Your task to perform on an android device: open device folders in google photos Image 0: 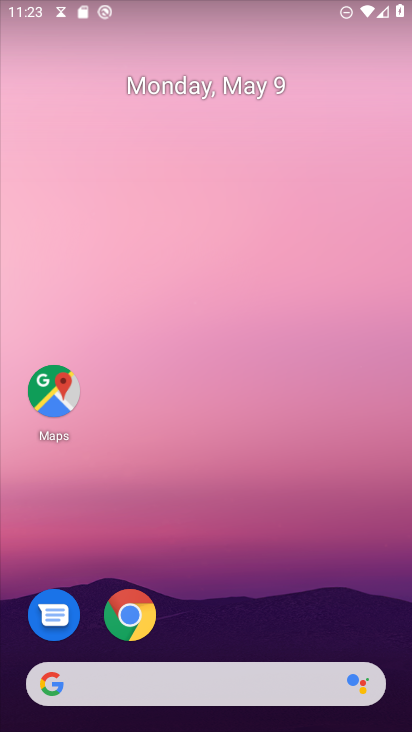
Step 0: drag from (199, 720) to (197, 165)
Your task to perform on an android device: open device folders in google photos Image 1: 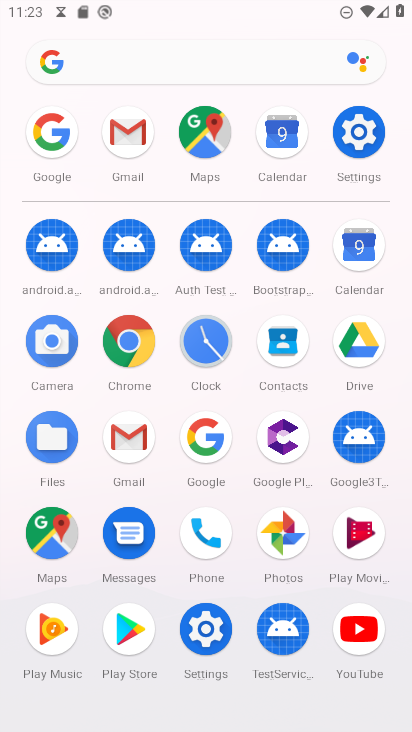
Step 1: click (280, 533)
Your task to perform on an android device: open device folders in google photos Image 2: 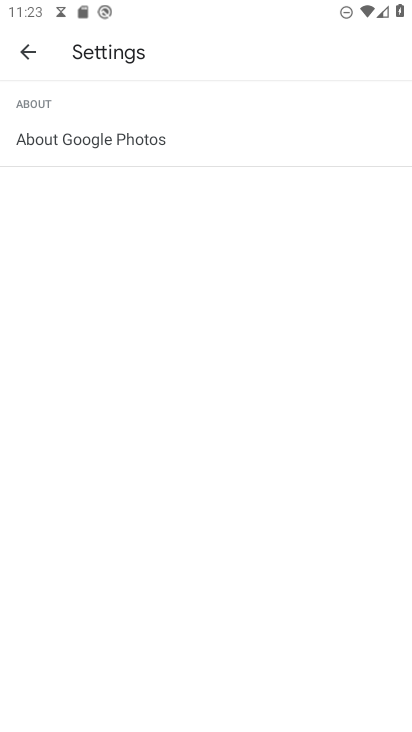
Step 2: click (29, 51)
Your task to perform on an android device: open device folders in google photos Image 3: 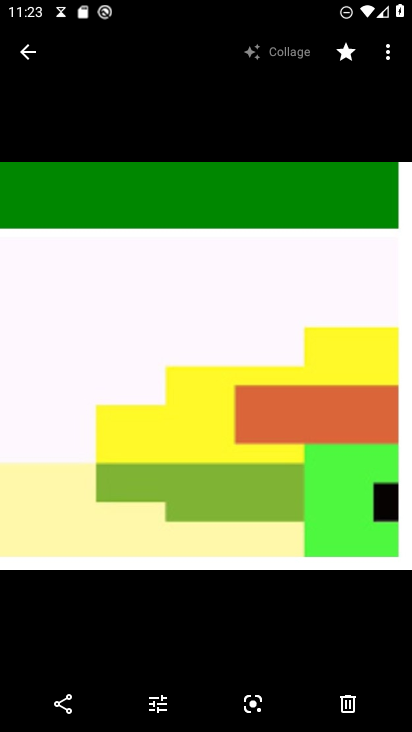
Step 3: click (33, 50)
Your task to perform on an android device: open device folders in google photos Image 4: 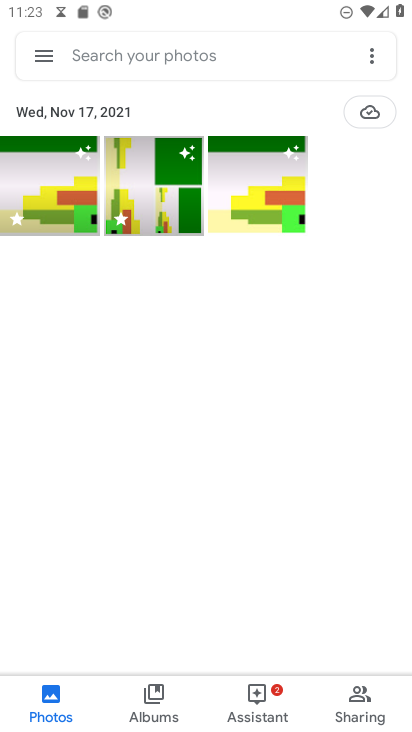
Step 4: click (38, 50)
Your task to perform on an android device: open device folders in google photos Image 5: 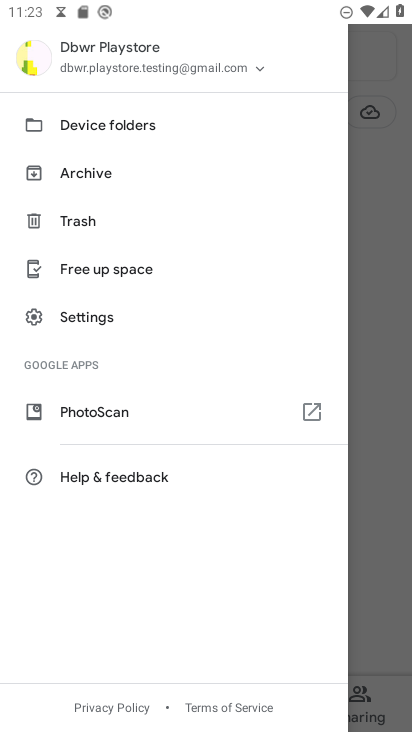
Step 5: click (86, 125)
Your task to perform on an android device: open device folders in google photos Image 6: 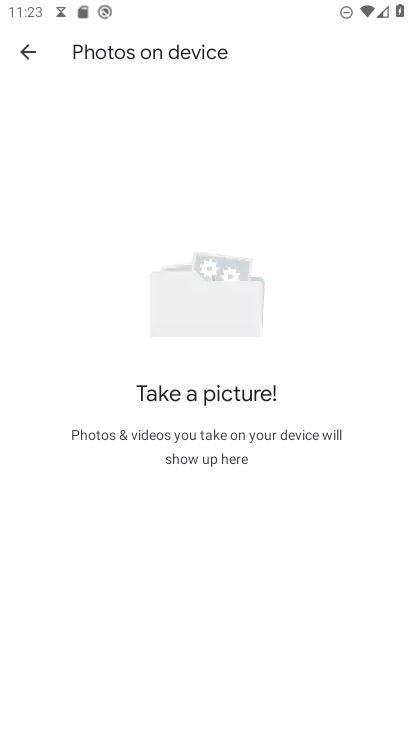
Step 6: task complete